Your task to perform on an android device: toggle show notifications on the lock screen Image 0: 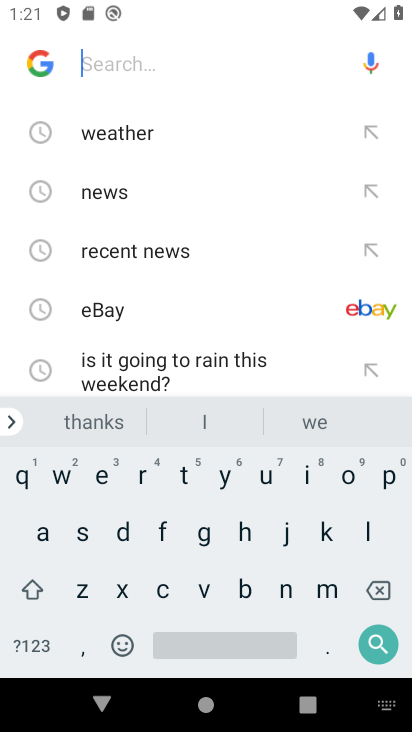
Step 0: press home button
Your task to perform on an android device: toggle show notifications on the lock screen Image 1: 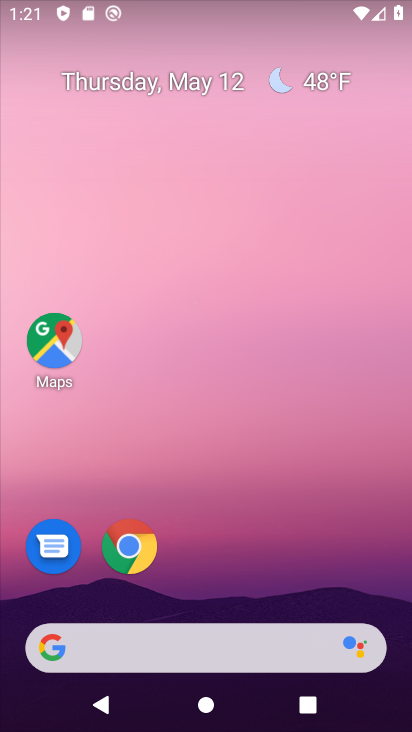
Step 1: drag from (262, 669) to (395, 259)
Your task to perform on an android device: toggle show notifications on the lock screen Image 2: 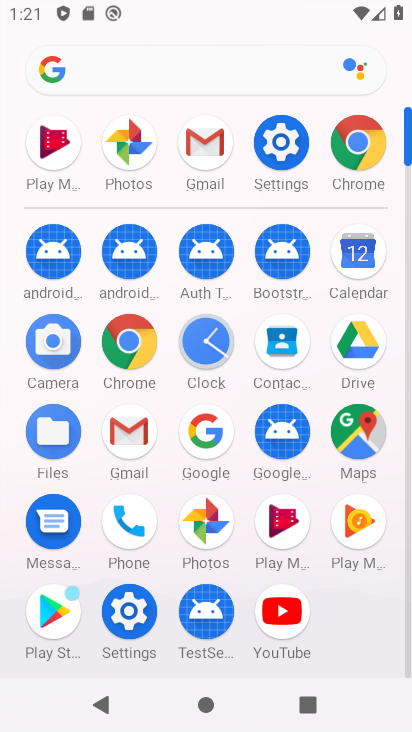
Step 2: click (284, 154)
Your task to perform on an android device: toggle show notifications on the lock screen Image 3: 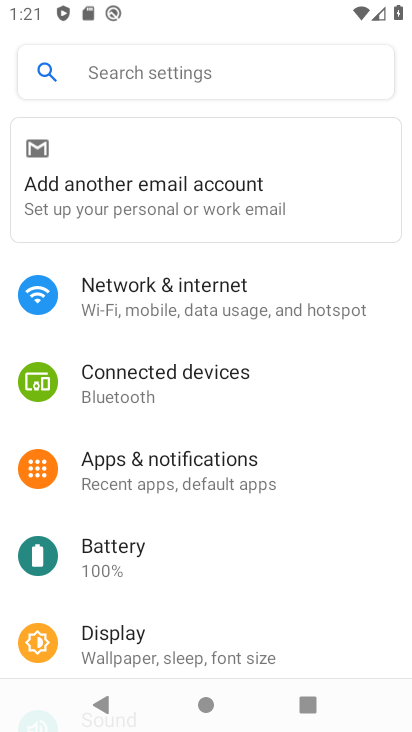
Step 3: click (201, 72)
Your task to perform on an android device: toggle show notifications on the lock screen Image 4: 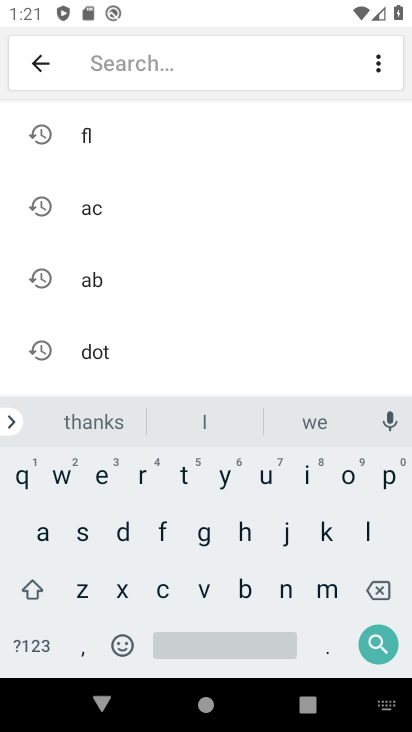
Step 4: click (285, 586)
Your task to perform on an android device: toggle show notifications on the lock screen Image 5: 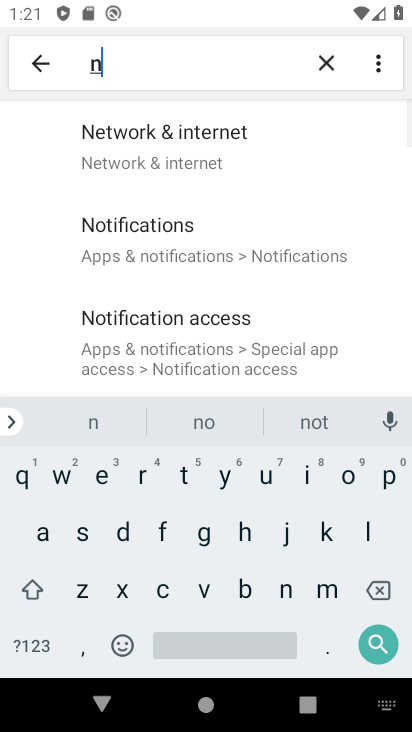
Step 5: click (347, 477)
Your task to perform on an android device: toggle show notifications on the lock screen Image 6: 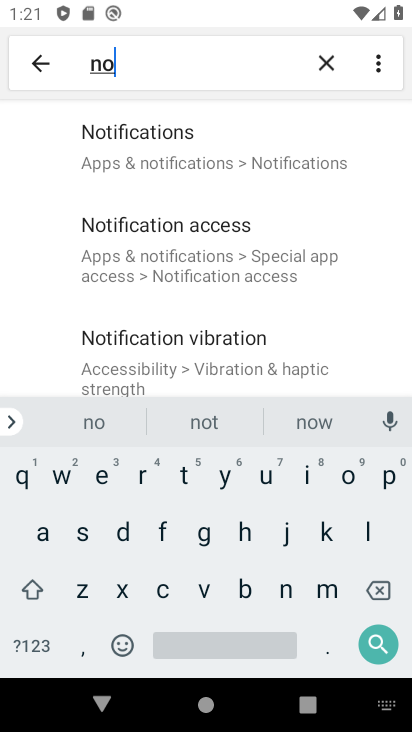
Step 6: click (220, 165)
Your task to perform on an android device: toggle show notifications on the lock screen Image 7: 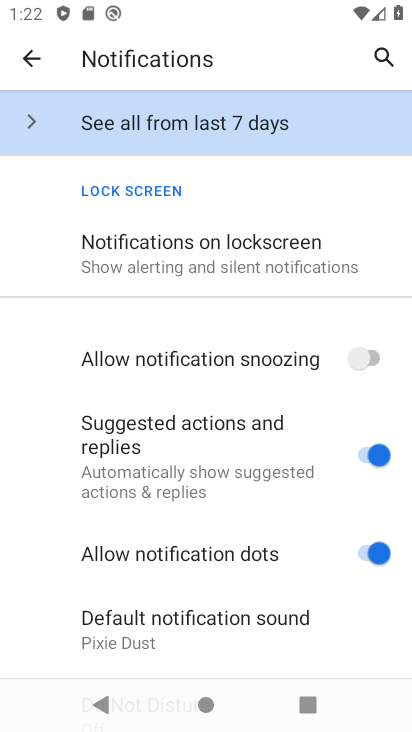
Step 7: click (188, 242)
Your task to perform on an android device: toggle show notifications on the lock screen Image 8: 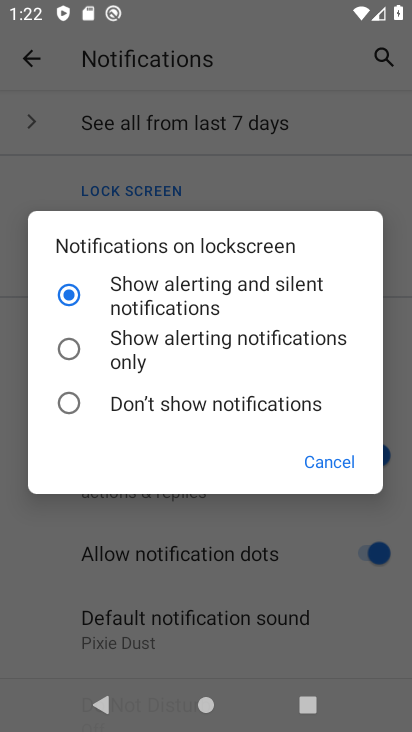
Step 8: task complete